Your task to perform on an android device: toggle wifi Image 0: 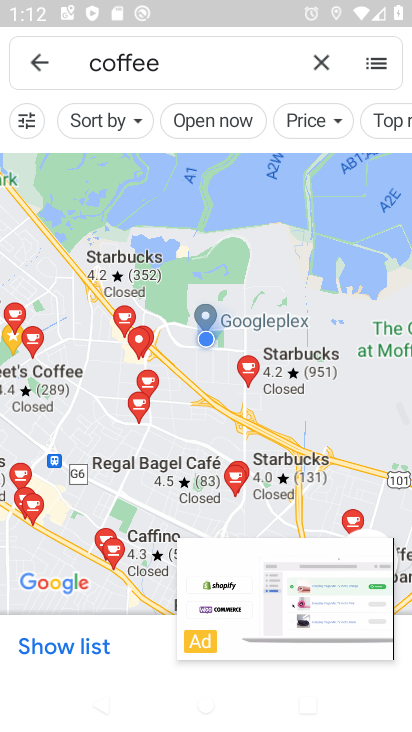
Step 0: click (347, 557)
Your task to perform on an android device: toggle wifi Image 1: 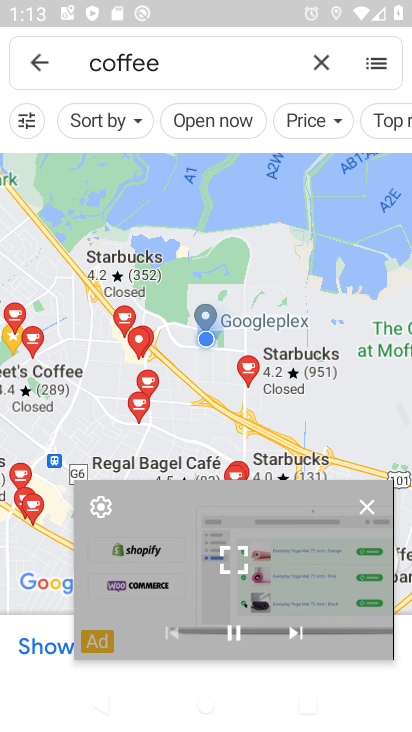
Step 1: click (367, 511)
Your task to perform on an android device: toggle wifi Image 2: 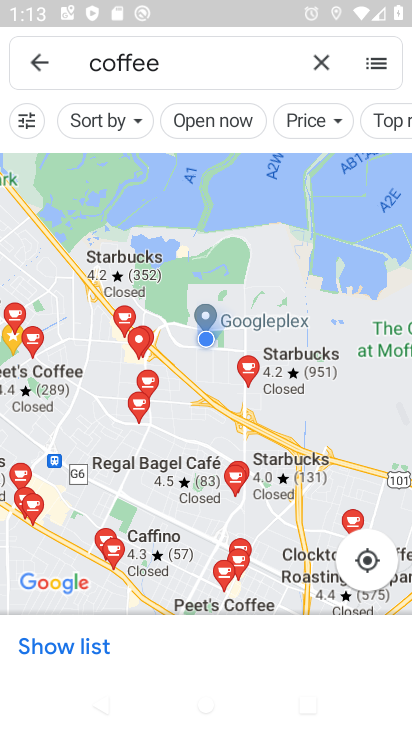
Step 2: press home button
Your task to perform on an android device: toggle wifi Image 3: 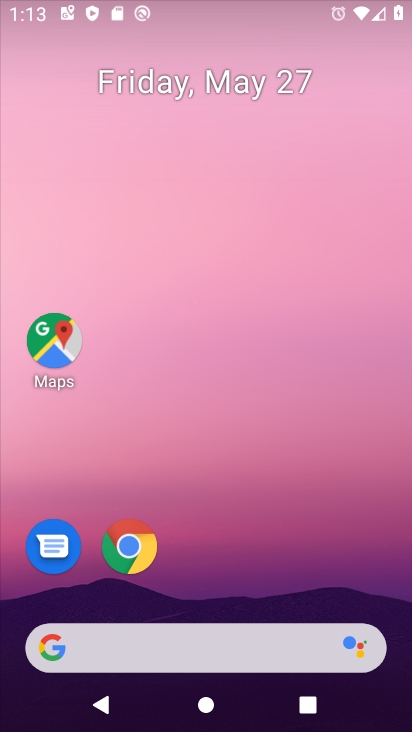
Step 3: drag from (232, 690) to (191, 161)
Your task to perform on an android device: toggle wifi Image 4: 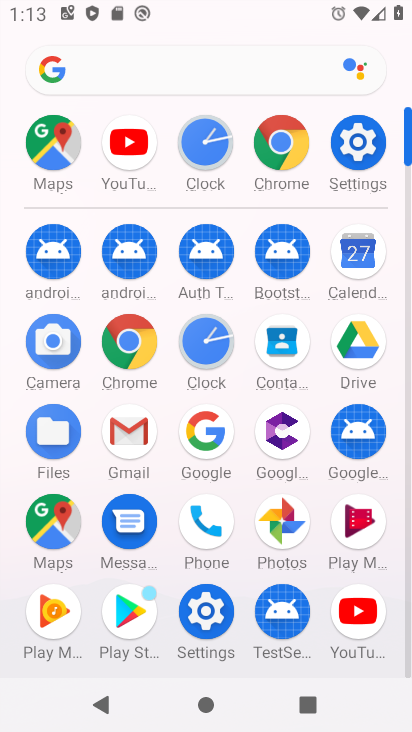
Step 4: click (356, 154)
Your task to perform on an android device: toggle wifi Image 5: 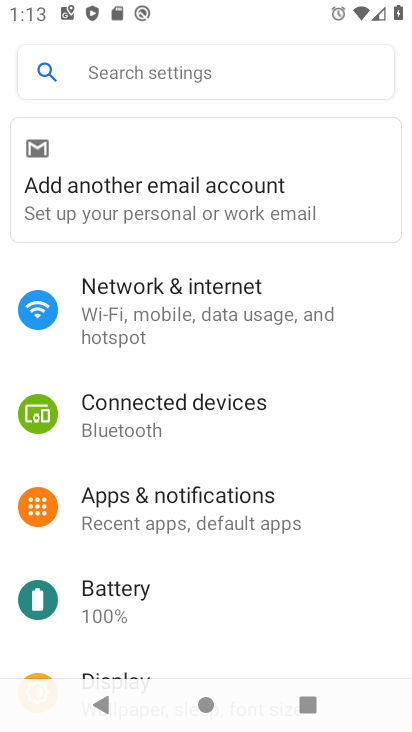
Step 5: click (189, 287)
Your task to perform on an android device: toggle wifi Image 6: 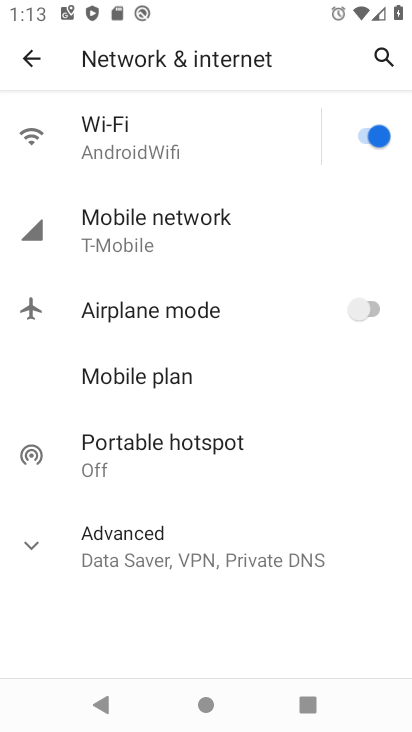
Step 6: click (179, 120)
Your task to perform on an android device: toggle wifi Image 7: 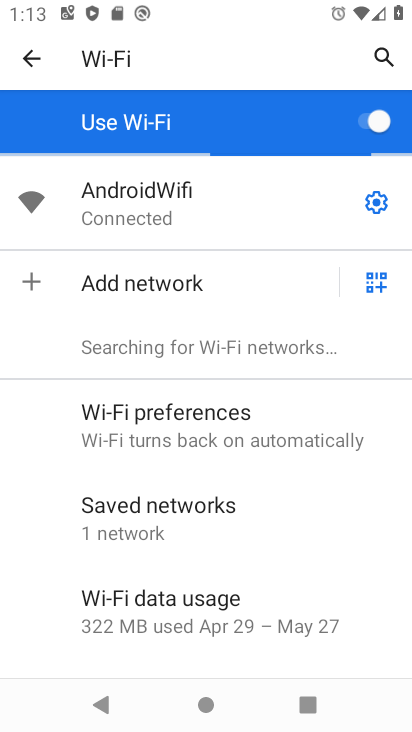
Step 7: task complete